Your task to perform on an android device: open a bookmark in the chrome app Image 0: 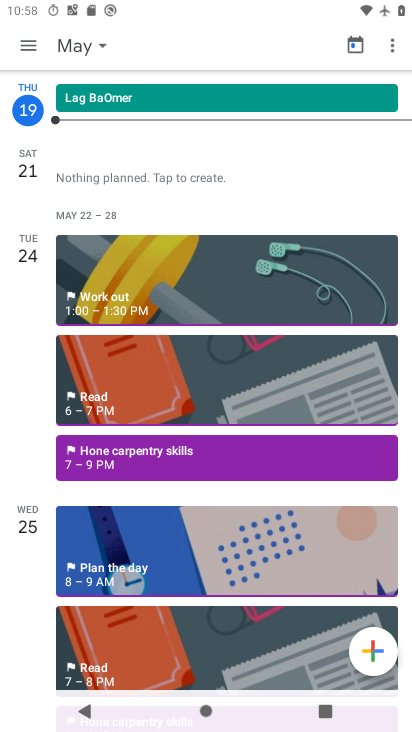
Step 0: press home button
Your task to perform on an android device: open a bookmark in the chrome app Image 1: 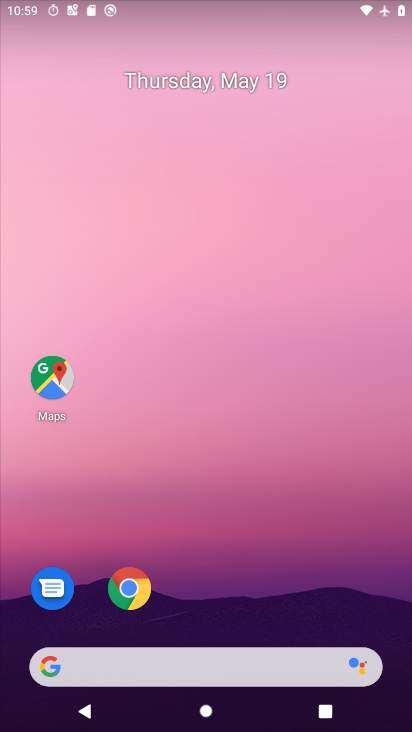
Step 1: click (135, 594)
Your task to perform on an android device: open a bookmark in the chrome app Image 2: 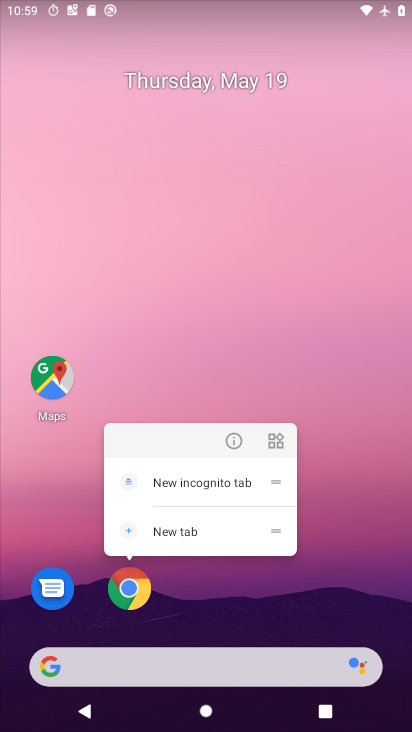
Step 2: click (123, 595)
Your task to perform on an android device: open a bookmark in the chrome app Image 3: 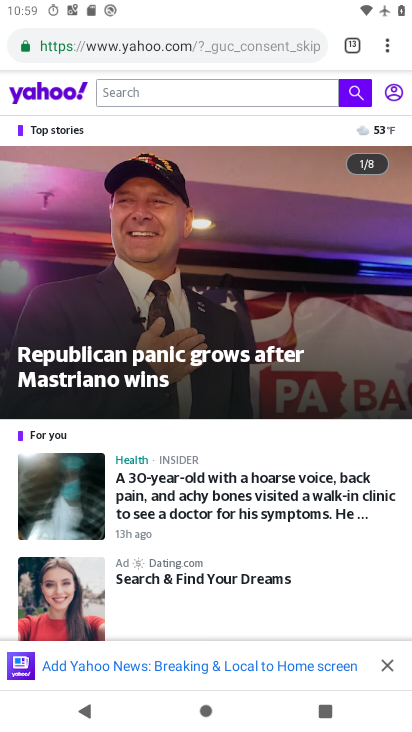
Step 3: task complete